Your task to perform on an android device: turn on showing notifications on the lock screen Image 0: 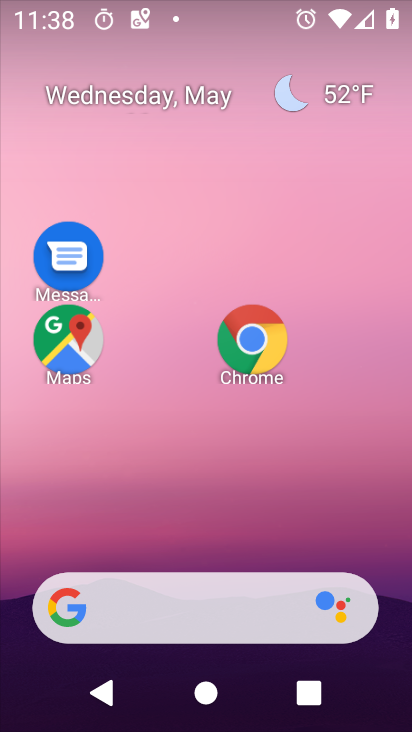
Step 0: drag from (228, 557) to (176, 90)
Your task to perform on an android device: turn on showing notifications on the lock screen Image 1: 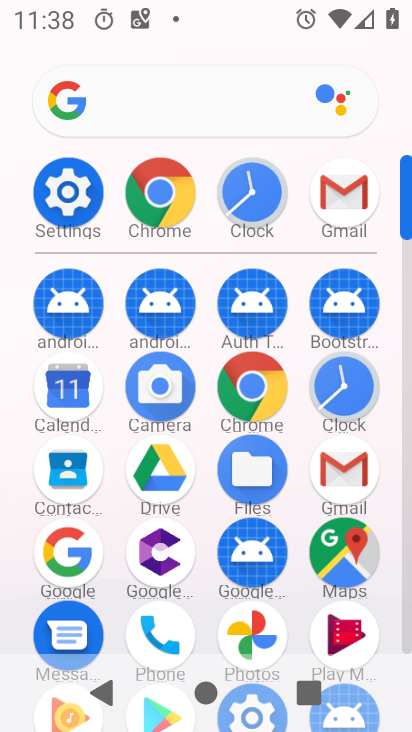
Step 1: click (67, 186)
Your task to perform on an android device: turn on showing notifications on the lock screen Image 2: 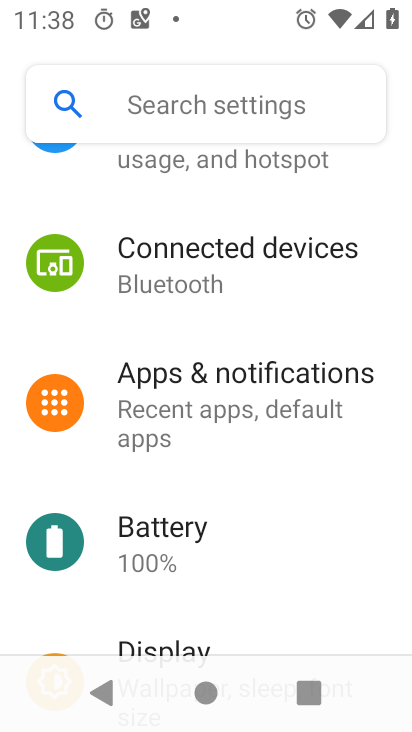
Step 2: drag from (219, 308) to (250, 500)
Your task to perform on an android device: turn on showing notifications on the lock screen Image 3: 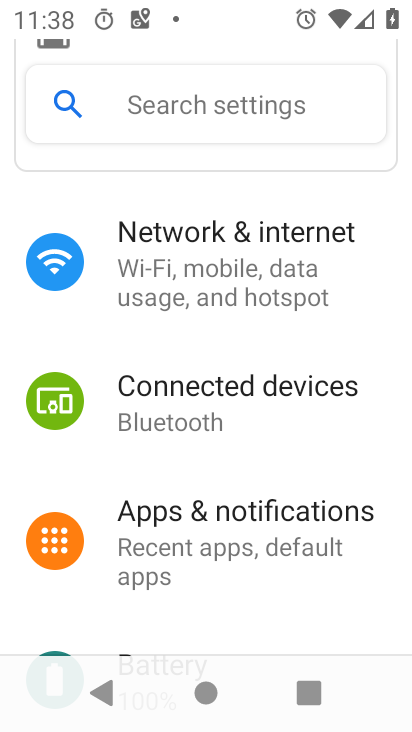
Step 3: click (238, 530)
Your task to perform on an android device: turn on showing notifications on the lock screen Image 4: 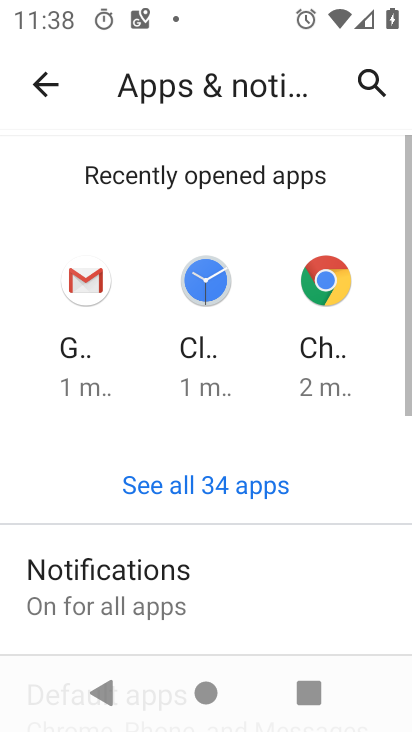
Step 4: click (176, 583)
Your task to perform on an android device: turn on showing notifications on the lock screen Image 5: 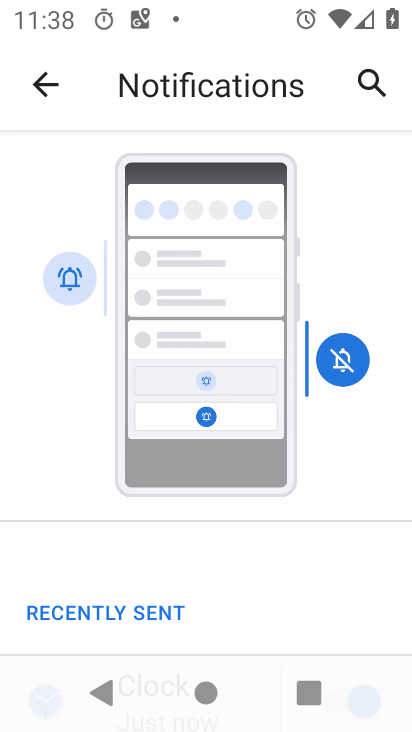
Step 5: drag from (266, 564) to (264, 118)
Your task to perform on an android device: turn on showing notifications on the lock screen Image 6: 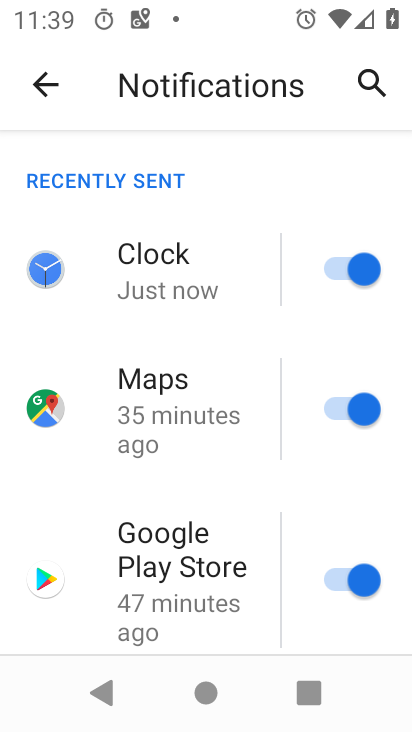
Step 6: drag from (202, 607) to (234, 169)
Your task to perform on an android device: turn on showing notifications on the lock screen Image 7: 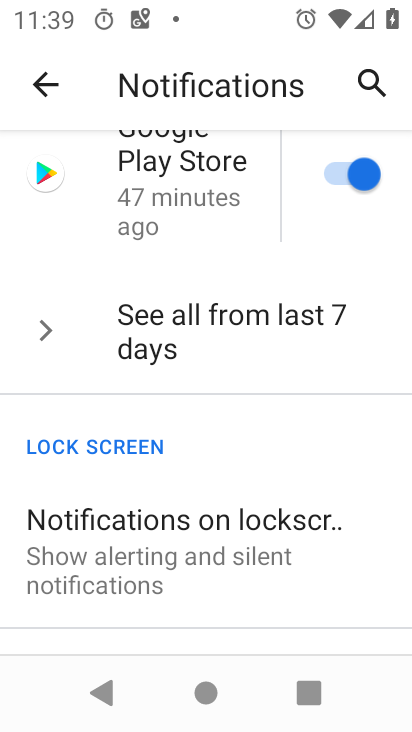
Step 7: click (157, 515)
Your task to perform on an android device: turn on showing notifications on the lock screen Image 8: 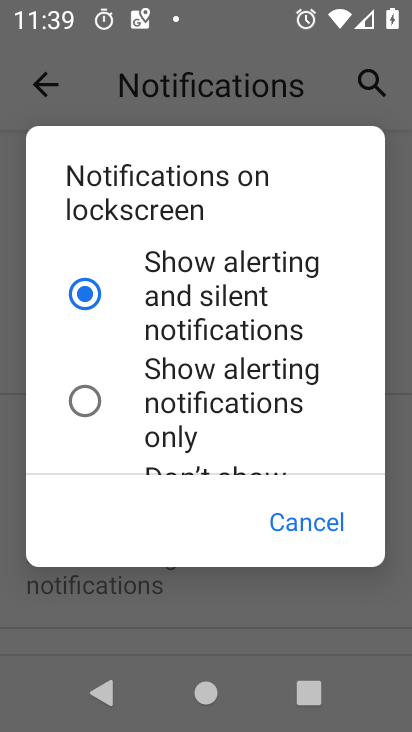
Step 8: task complete